Your task to perform on an android device: Go to calendar. Show me events next week Image 0: 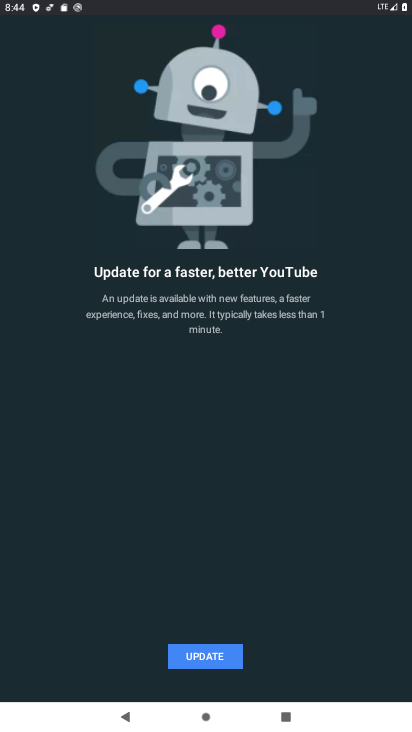
Step 0: press back button
Your task to perform on an android device: Go to calendar. Show me events next week Image 1: 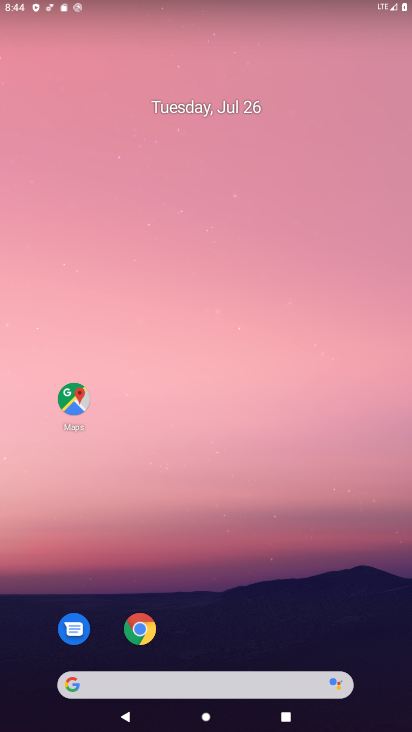
Step 1: drag from (189, 643) to (398, 372)
Your task to perform on an android device: Go to calendar. Show me events next week Image 2: 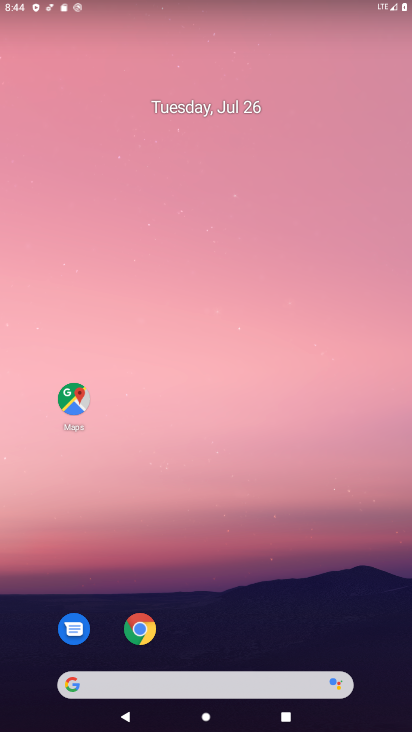
Step 2: drag from (243, 653) to (234, 148)
Your task to perform on an android device: Go to calendar. Show me events next week Image 3: 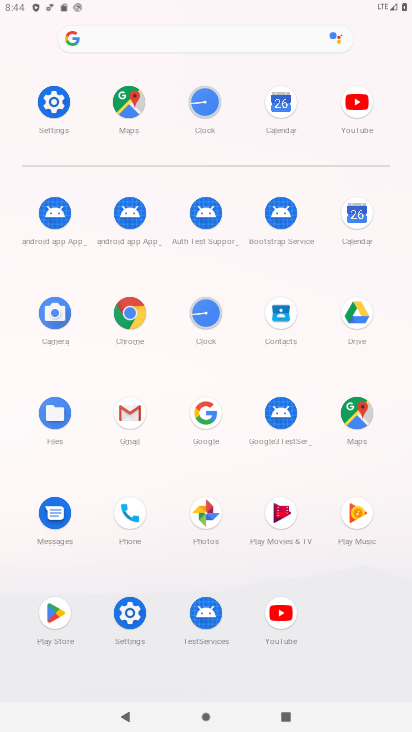
Step 3: click (359, 221)
Your task to perform on an android device: Go to calendar. Show me events next week Image 4: 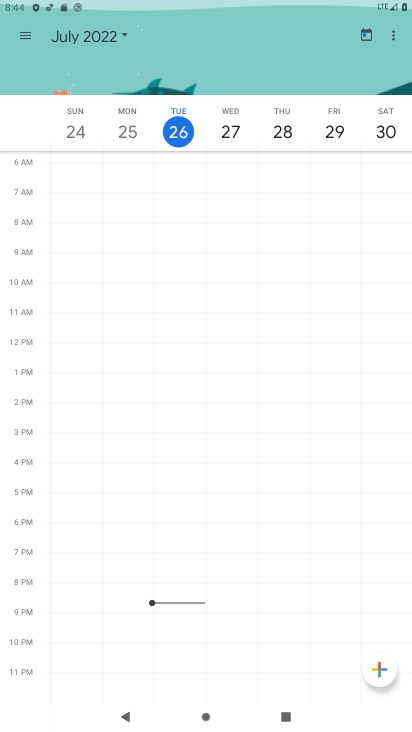
Step 4: task complete